Your task to perform on an android device: snooze an email in the gmail app Image 0: 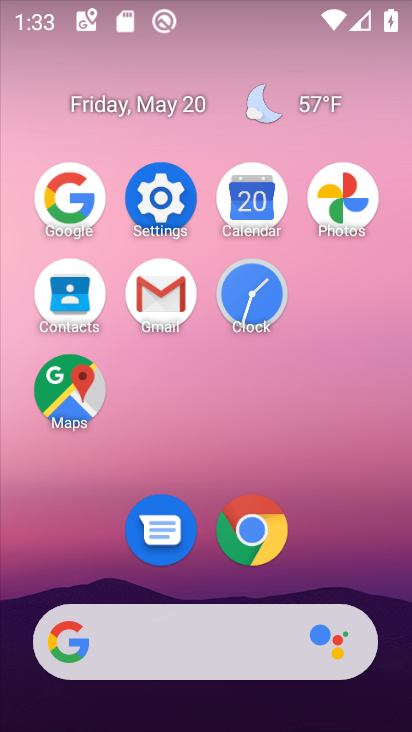
Step 0: click (175, 300)
Your task to perform on an android device: snooze an email in the gmail app Image 1: 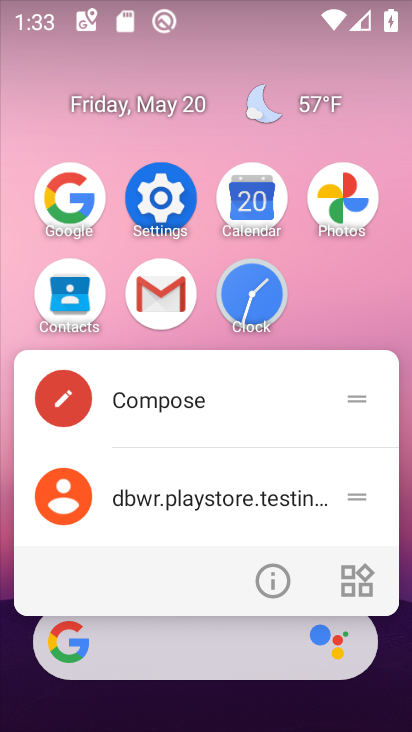
Step 1: click (143, 290)
Your task to perform on an android device: snooze an email in the gmail app Image 2: 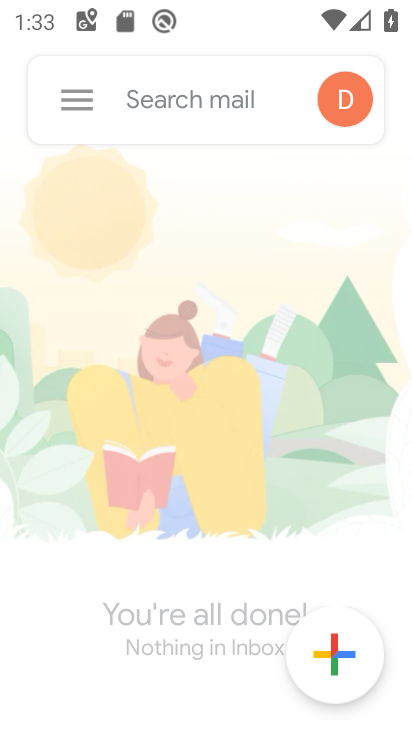
Step 2: click (80, 125)
Your task to perform on an android device: snooze an email in the gmail app Image 3: 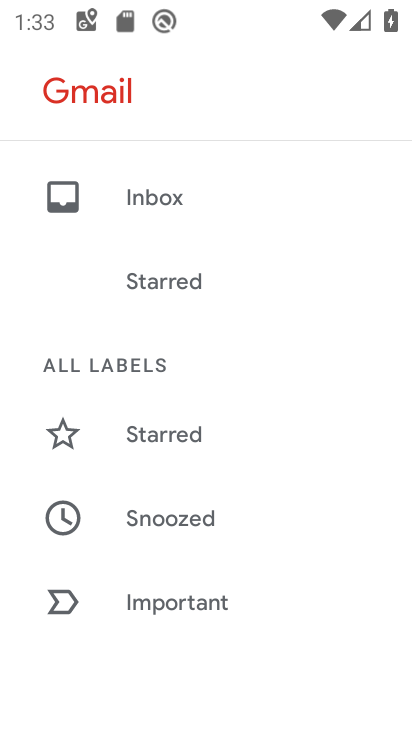
Step 3: drag from (229, 517) to (288, 222)
Your task to perform on an android device: snooze an email in the gmail app Image 4: 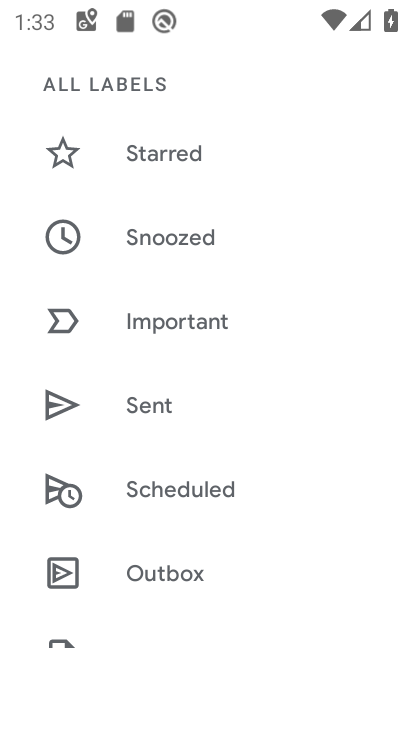
Step 4: drag from (232, 534) to (261, 208)
Your task to perform on an android device: snooze an email in the gmail app Image 5: 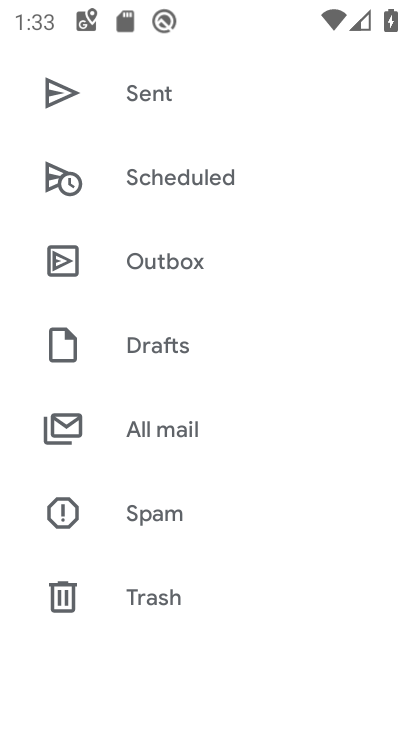
Step 5: click (194, 431)
Your task to perform on an android device: snooze an email in the gmail app Image 6: 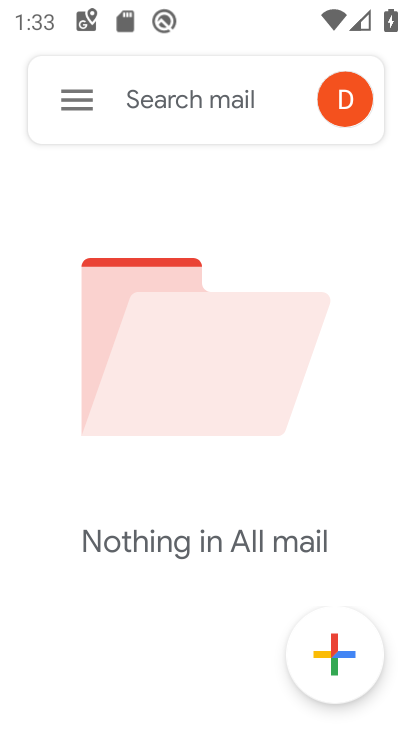
Step 6: task complete